Your task to perform on an android device: toggle wifi Image 0: 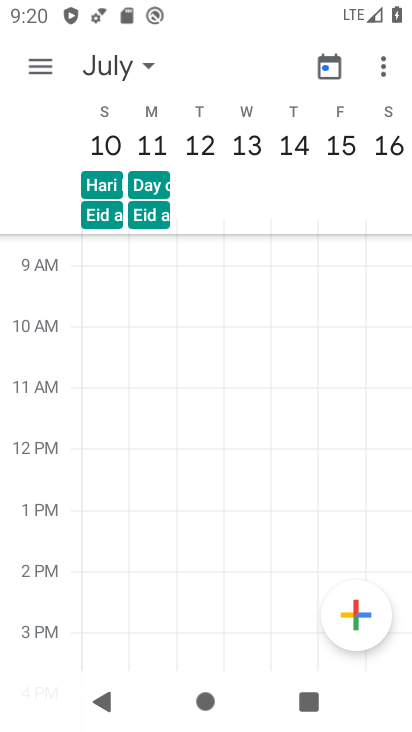
Step 0: press home button
Your task to perform on an android device: toggle wifi Image 1: 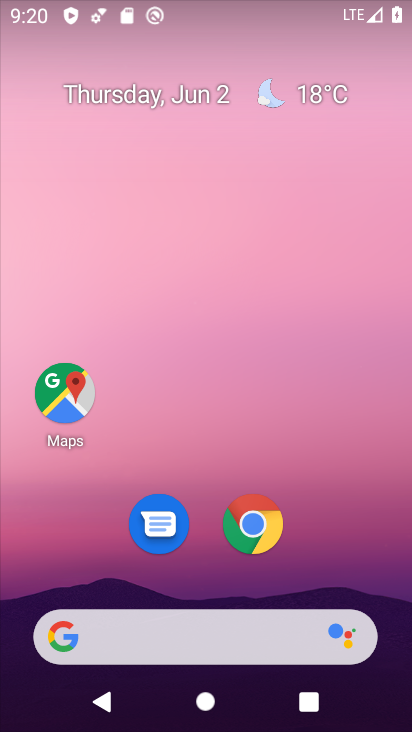
Step 1: drag from (328, 555) to (220, 41)
Your task to perform on an android device: toggle wifi Image 2: 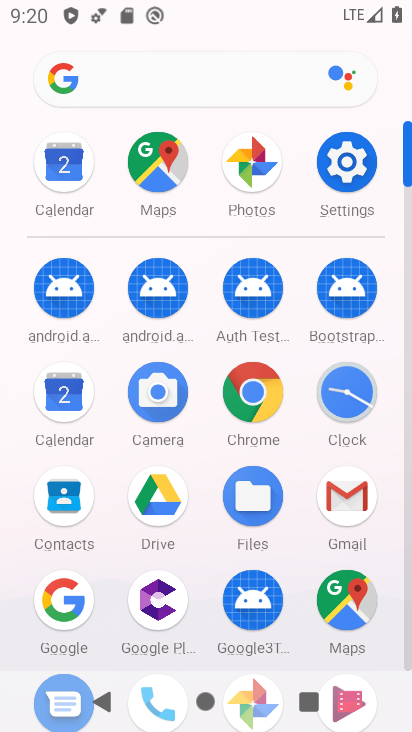
Step 2: click (343, 162)
Your task to perform on an android device: toggle wifi Image 3: 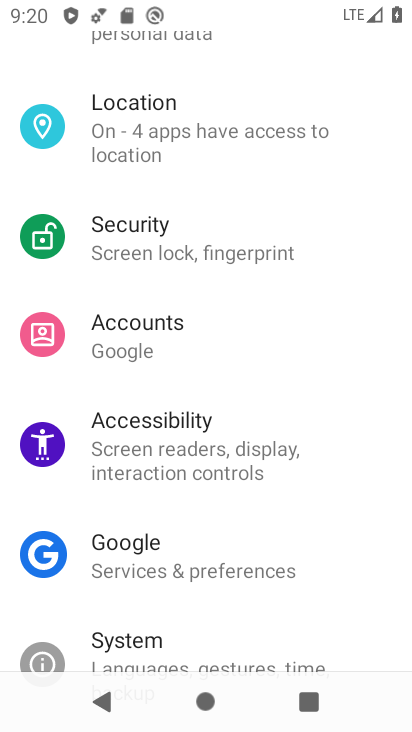
Step 3: drag from (276, 214) to (315, 601)
Your task to perform on an android device: toggle wifi Image 4: 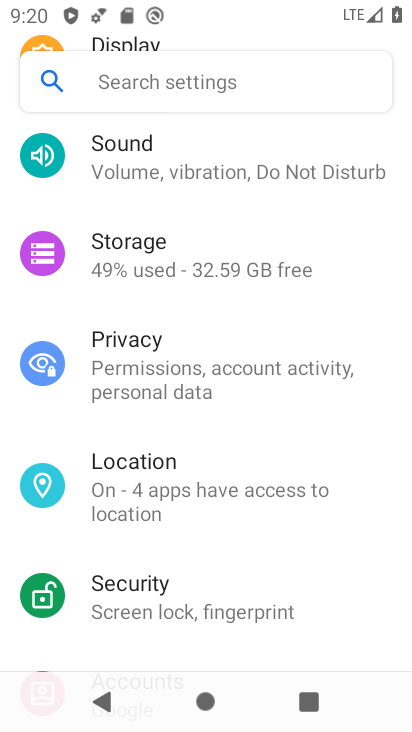
Step 4: drag from (211, 215) to (288, 623)
Your task to perform on an android device: toggle wifi Image 5: 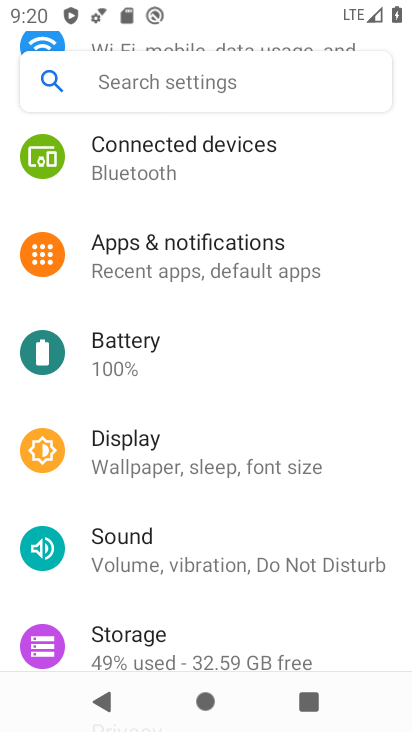
Step 5: drag from (203, 214) to (235, 569)
Your task to perform on an android device: toggle wifi Image 6: 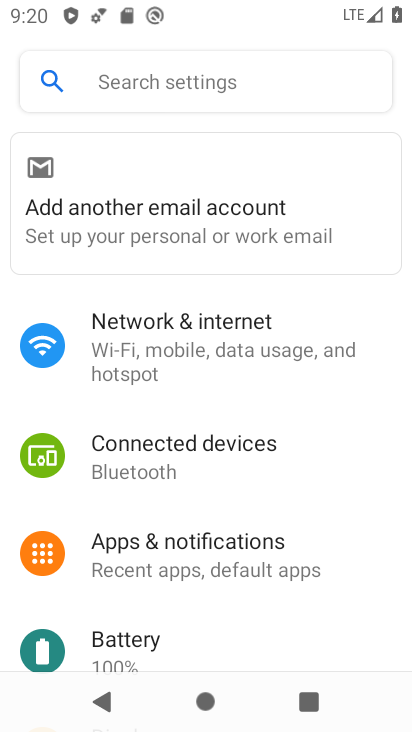
Step 6: click (254, 336)
Your task to perform on an android device: toggle wifi Image 7: 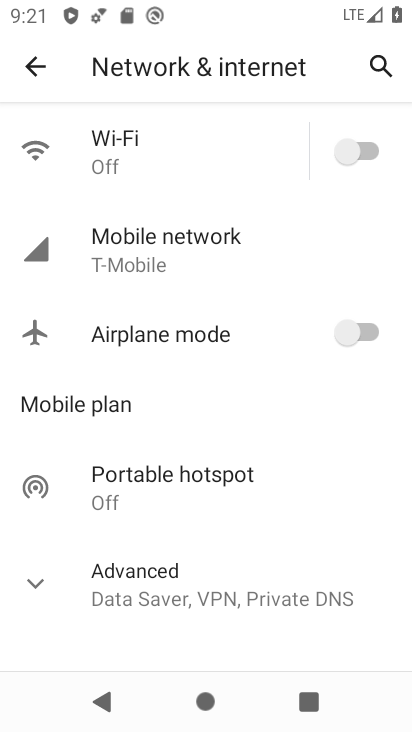
Step 7: click (346, 143)
Your task to perform on an android device: toggle wifi Image 8: 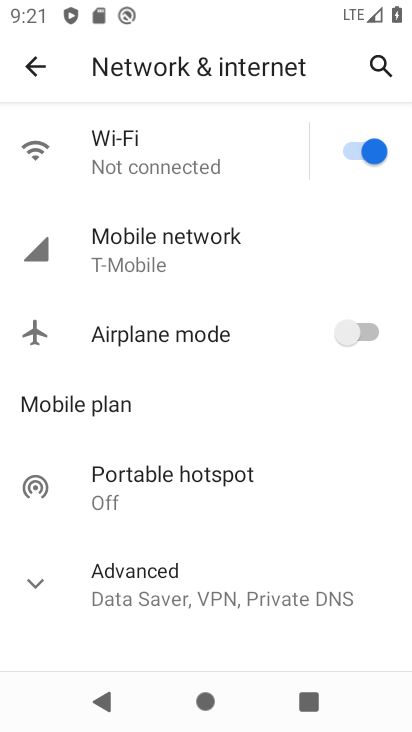
Step 8: task complete